Your task to perform on an android device: set default search engine in the chrome app Image 0: 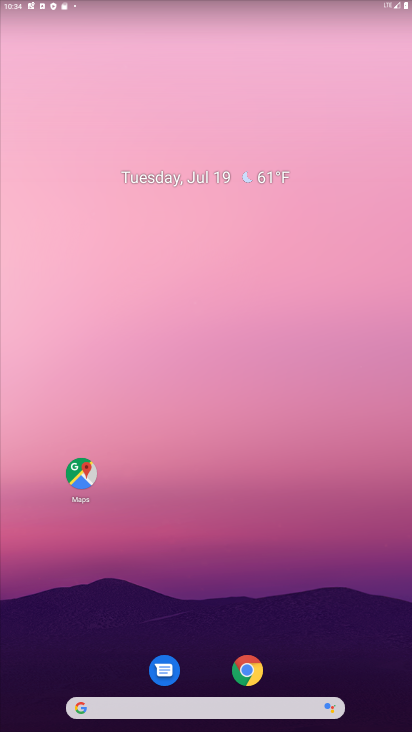
Step 0: click (251, 668)
Your task to perform on an android device: set default search engine in the chrome app Image 1: 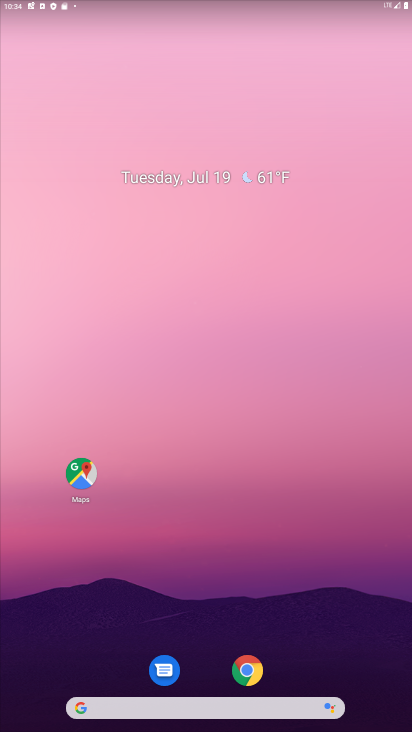
Step 1: click (251, 668)
Your task to perform on an android device: set default search engine in the chrome app Image 2: 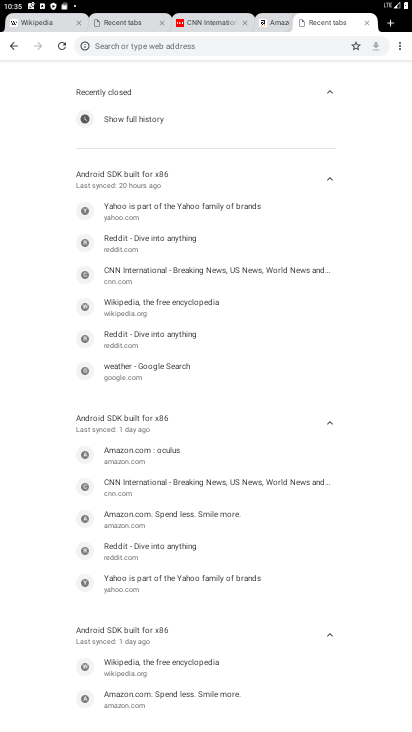
Step 2: click (398, 42)
Your task to perform on an android device: set default search engine in the chrome app Image 3: 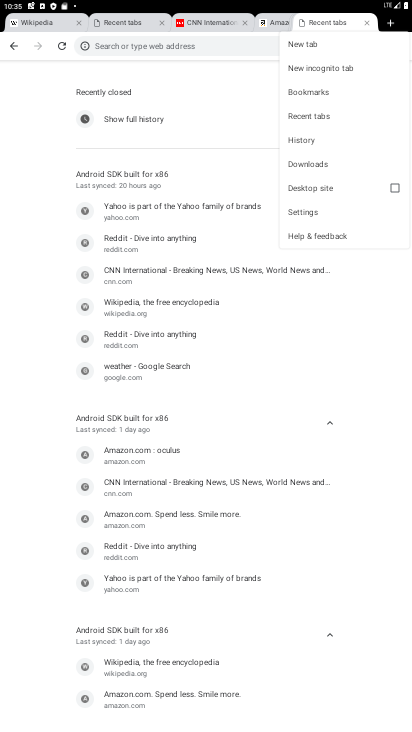
Step 3: click (319, 208)
Your task to perform on an android device: set default search engine in the chrome app Image 4: 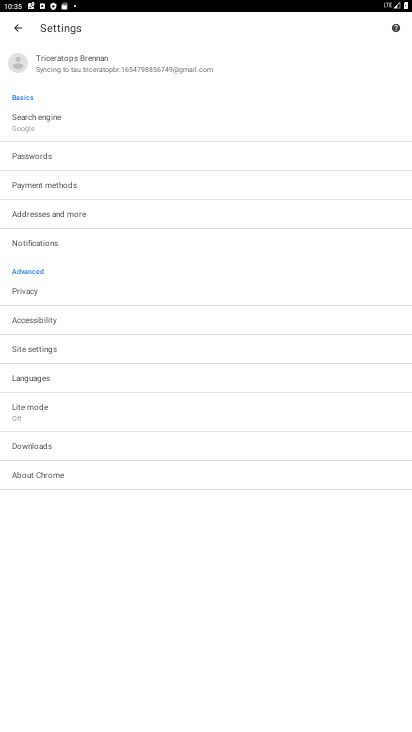
Step 4: click (104, 127)
Your task to perform on an android device: set default search engine in the chrome app Image 5: 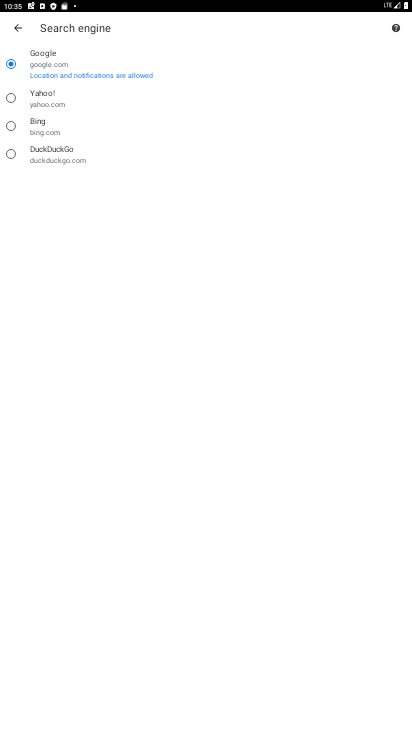
Step 5: task complete